Your task to perform on an android device: Open network settings Image 0: 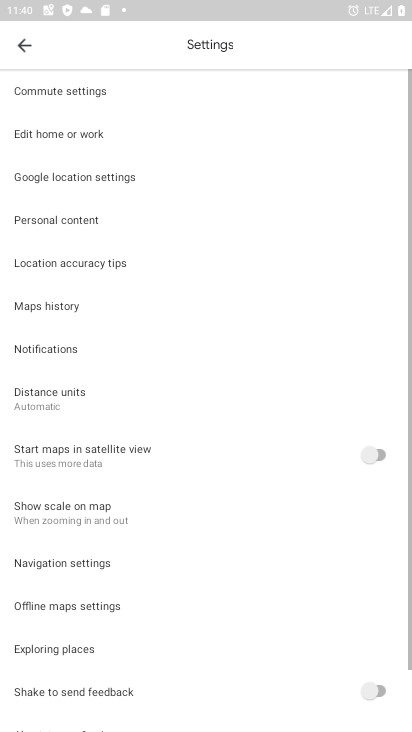
Step 0: press home button
Your task to perform on an android device: Open network settings Image 1: 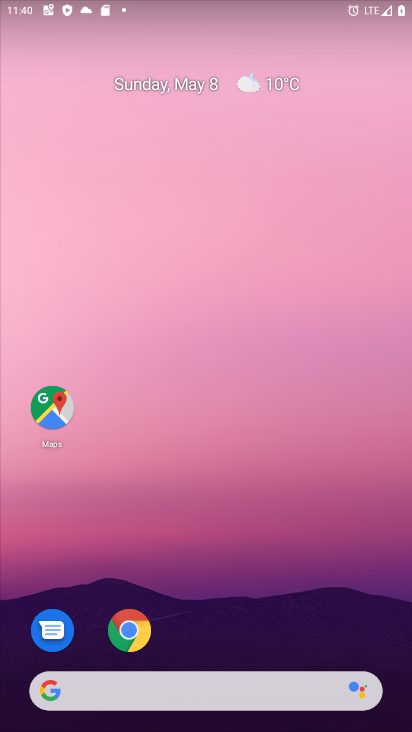
Step 1: drag from (365, 633) to (285, 51)
Your task to perform on an android device: Open network settings Image 2: 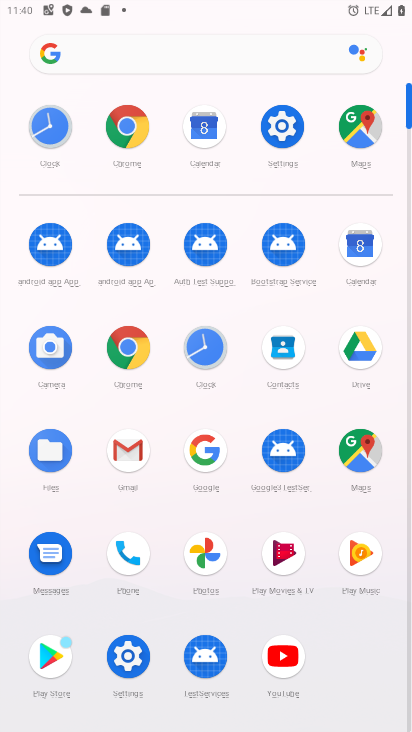
Step 2: click (286, 136)
Your task to perform on an android device: Open network settings Image 3: 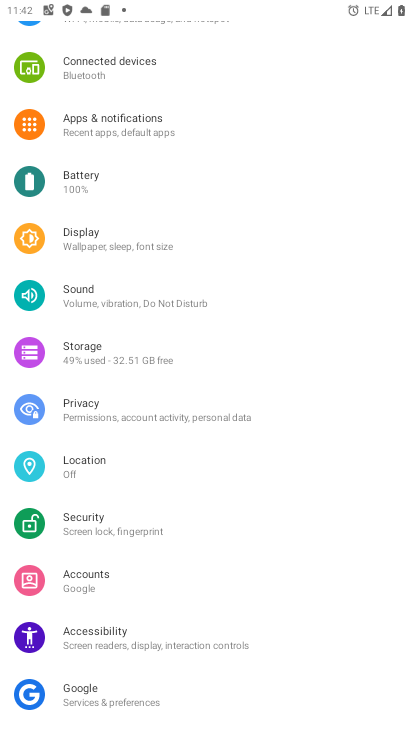
Step 3: drag from (137, 104) to (137, 533)
Your task to perform on an android device: Open network settings Image 4: 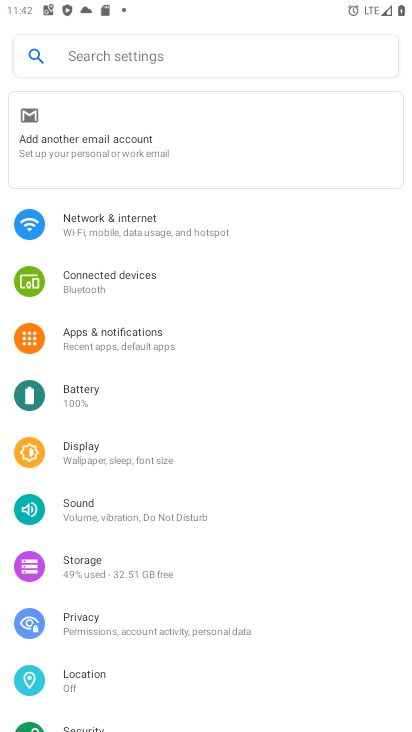
Step 4: click (142, 237)
Your task to perform on an android device: Open network settings Image 5: 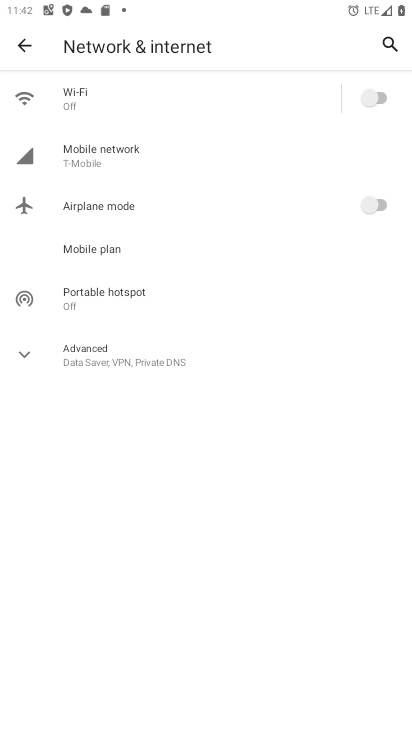
Step 5: task complete